Your task to perform on an android device: Open Google Chrome and click the shortcut for Amazon.com Image 0: 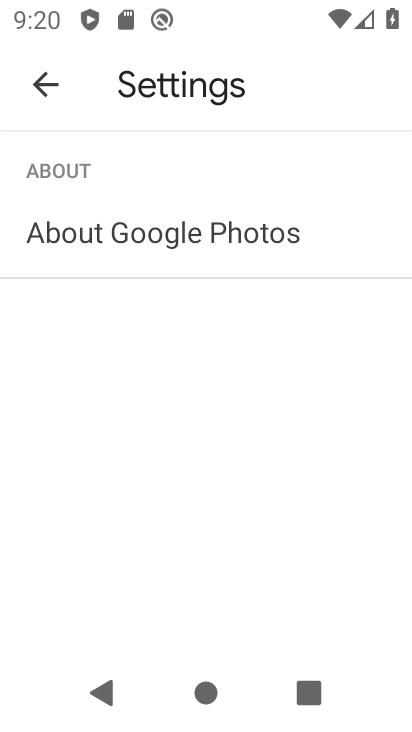
Step 0: press home button
Your task to perform on an android device: Open Google Chrome and click the shortcut for Amazon.com Image 1: 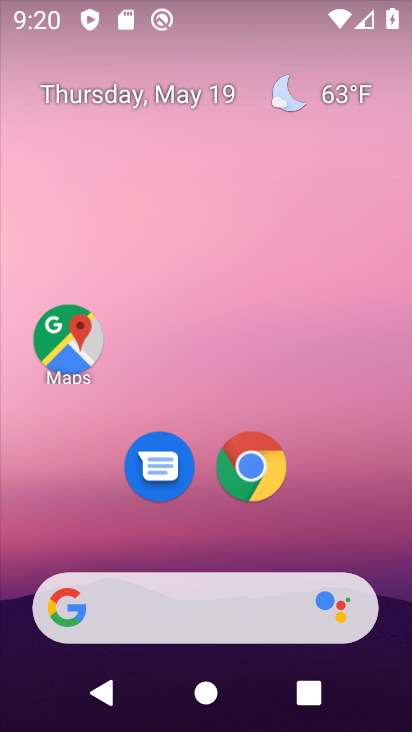
Step 1: drag from (396, 620) to (341, 0)
Your task to perform on an android device: Open Google Chrome and click the shortcut for Amazon.com Image 2: 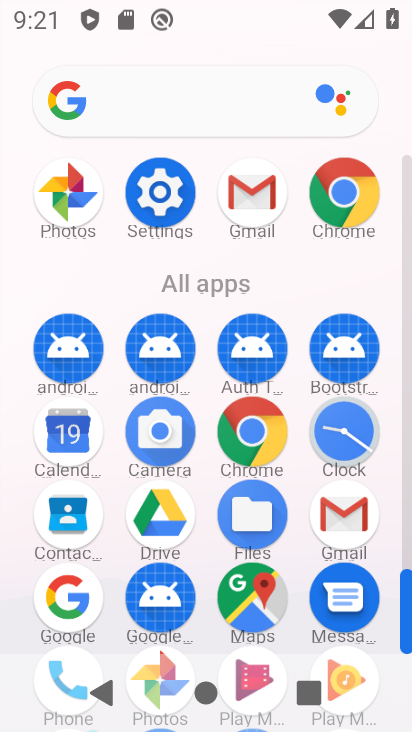
Step 2: click (328, 212)
Your task to perform on an android device: Open Google Chrome and click the shortcut for Amazon.com Image 3: 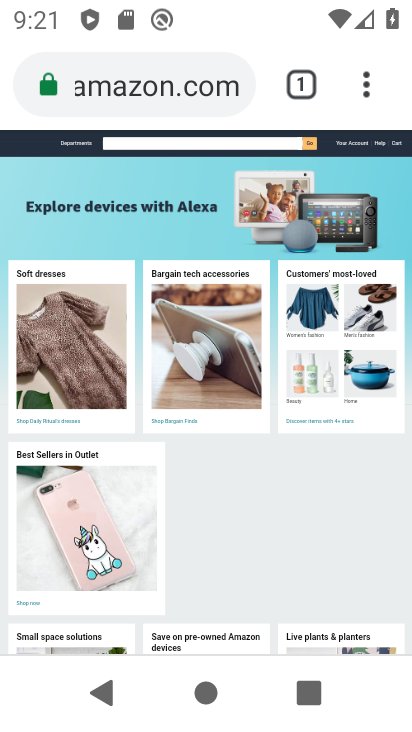
Step 3: task complete